Your task to perform on an android device: Open calendar and show me the third week of next month Image 0: 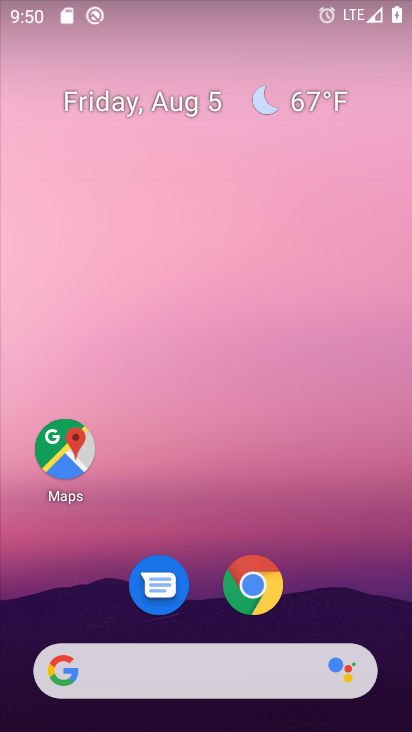
Step 0: drag from (318, 556) to (352, 4)
Your task to perform on an android device: Open calendar and show me the third week of next month Image 1: 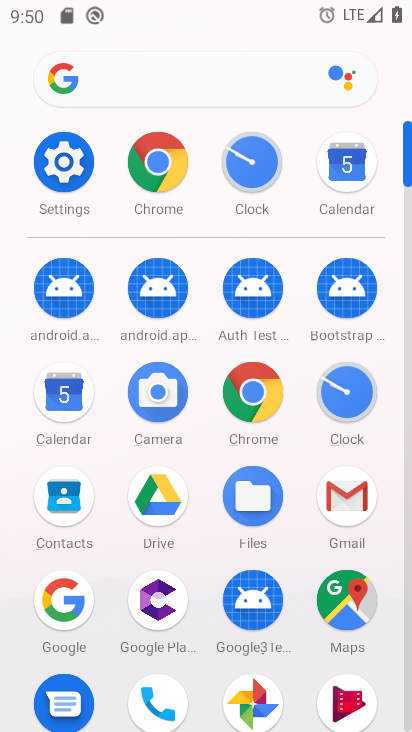
Step 1: click (348, 163)
Your task to perform on an android device: Open calendar and show me the third week of next month Image 2: 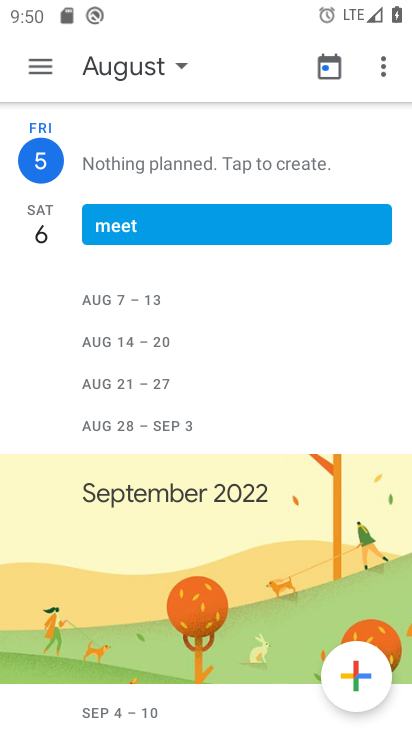
Step 2: click (39, 70)
Your task to perform on an android device: Open calendar and show me the third week of next month Image 3: 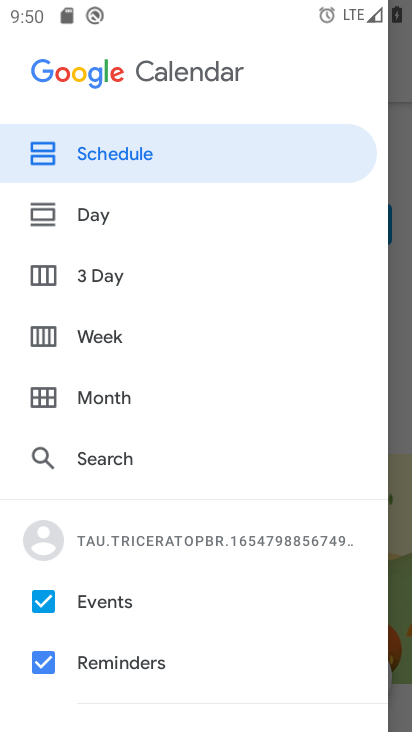
Step 3: click (41, 391)
Your task to perform on an android device: Open calendar and show me the third week of next month Image 4: 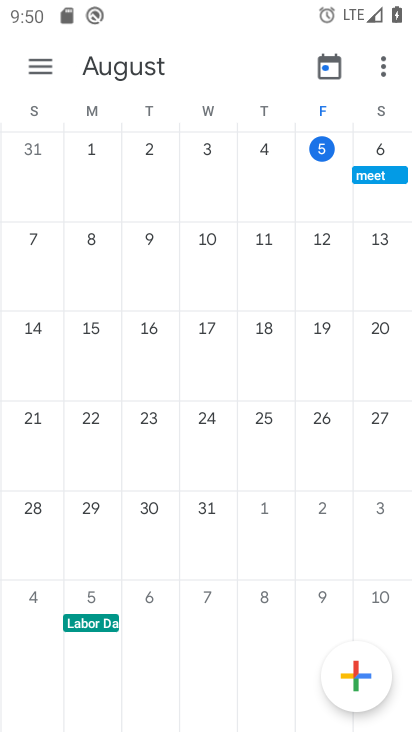
Step 4: drag from (377, 367) to (4, 331)
Your task to perform on an android device: Open calendar and show me the third week of next month Image 5: 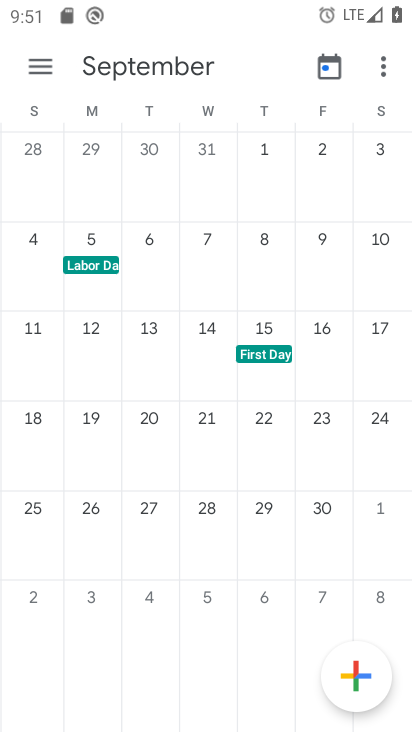
Step 5: click (31, 413)
Your task to perform on an android device: Open calendar and show me the third week of next month Image 6: 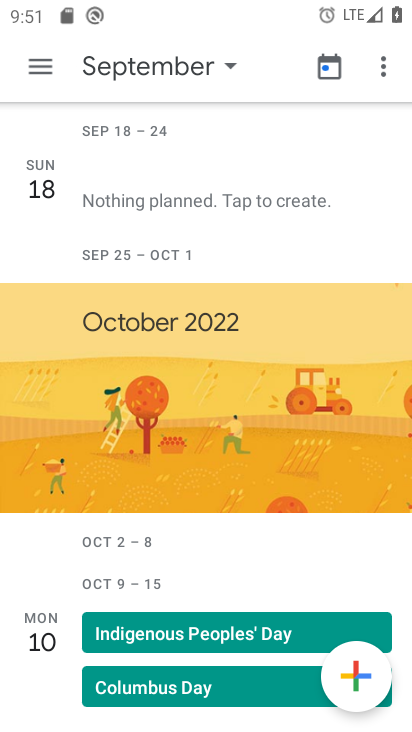
Step 6: click (45, 71)
Your task to perform on an android device: Open calendar and show me the third week of next month Image 7: 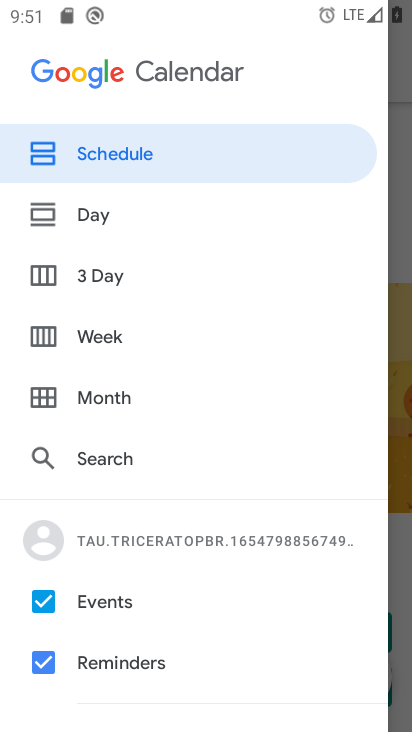
Step 7: click (41, 334)
Your task to perform on an android device: Open calendar and show me the third week of next month Image 8: 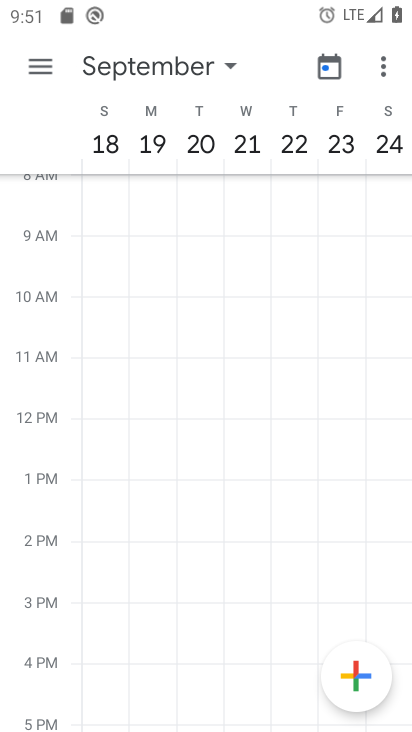
Step 8: task complete